Your task to perform on an android device: change the upload size in google photos Image 0: 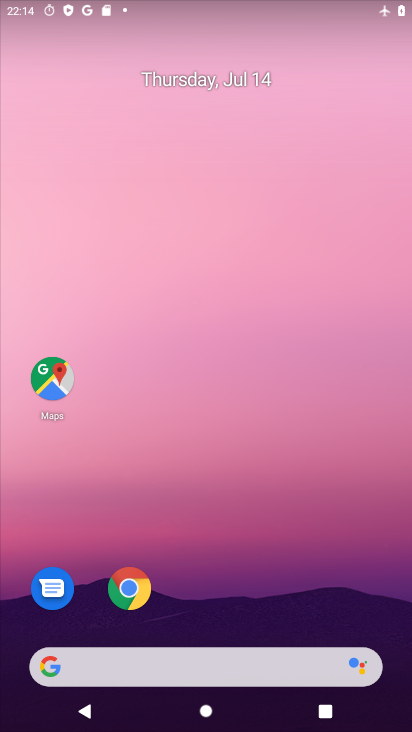
Step 0: drag from (249, 600) to (280, 162)
Your task to perform on an android device: change the upload size in google photos Image 1: 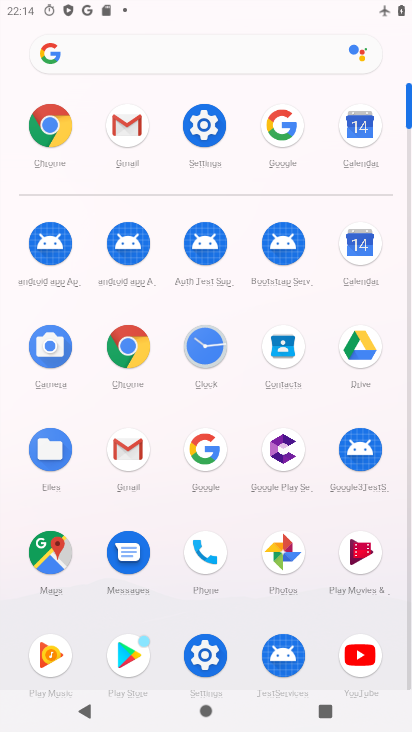
Step 1: click (285, 549)
Your task to perform on an android device: change the upload size in google photos Image 2: 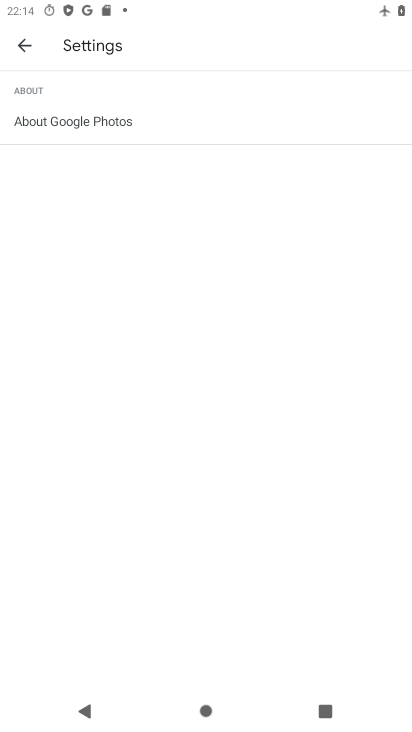
Step 2: press back button
Your task to perform on an android device: change the upload size in google photos Image 3: 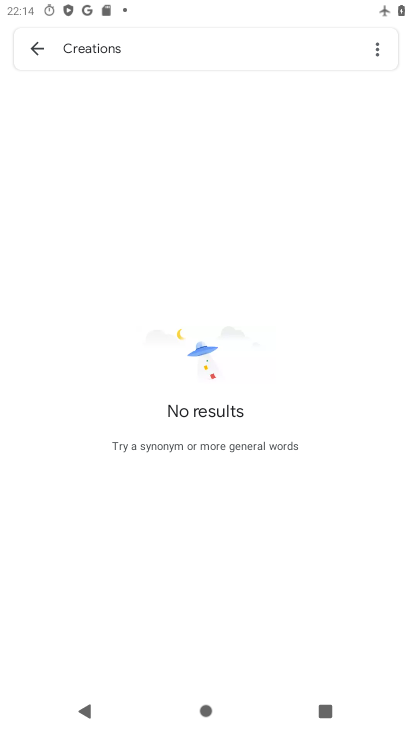
Step 3: press back button
Your task to perform on an android device: change the upload size in google photos Image 4: 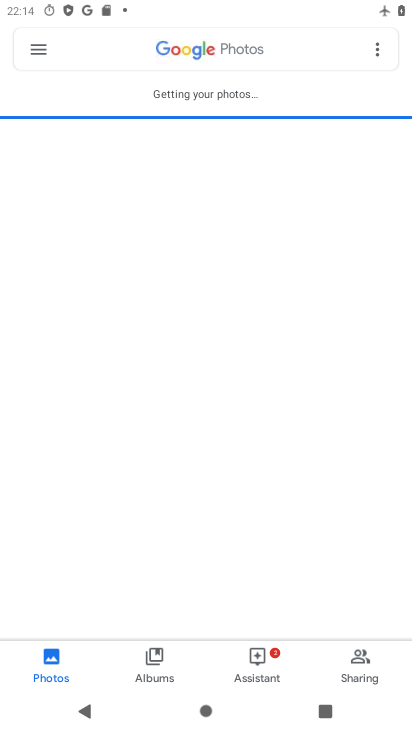
Step 4: click (45, 44)
Your task to perform on an android device: change the upload size in google photos Image 5: 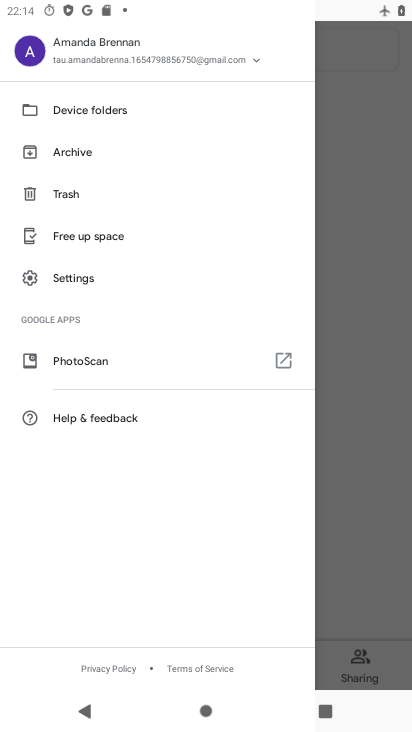
Step 5: click (69, 275)
Your task to perform on an android device: change the upload size in google photos Image 6: 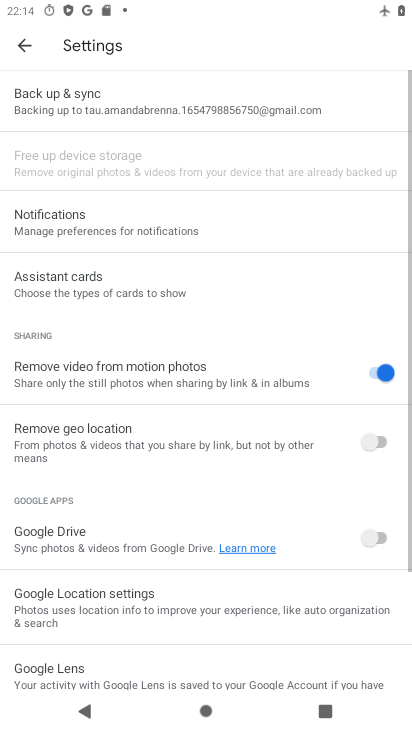
Step 6: click (116, 99)
Your task to perform on an android device: change the upload size in google photos Image 7: 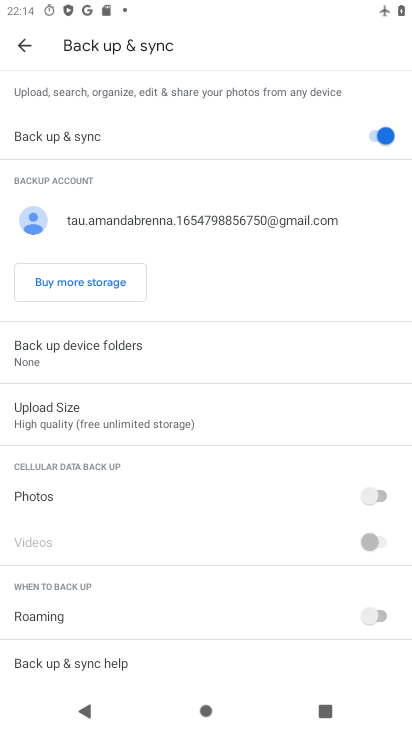
Step 7: drag from (114, 619) to (149, 94)
Your task to perform on an android device: change the upload size in google photos Image 8: 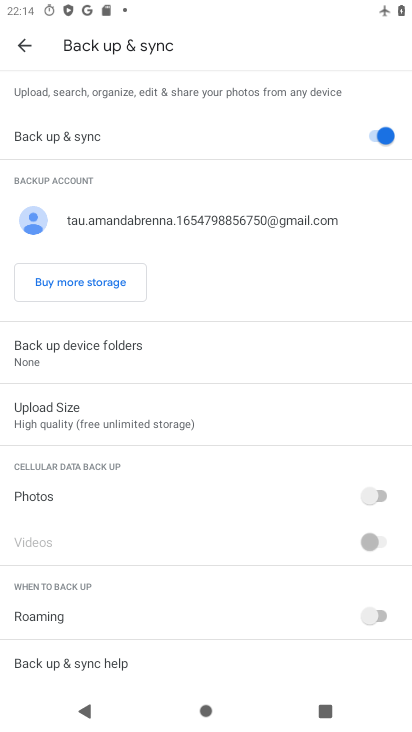
Step 8: click (85, 414)
Your task to perform on an android device: change the upload size in google photos Image 9: 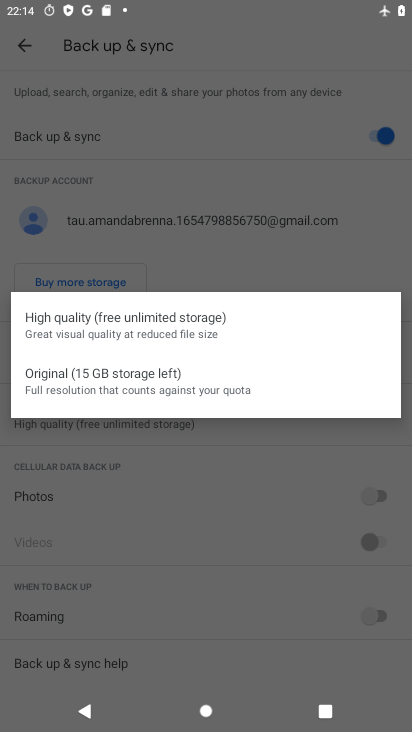
Step 9: click (73, 390)
Your task to perform on an android device: change the upload size in google photos Image 10: 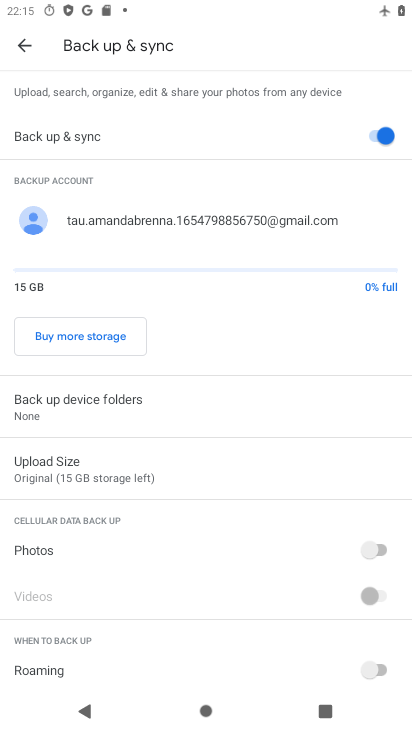
Step 10: task complete